Your task to perform on an android device: all mails in gmail Image 0: 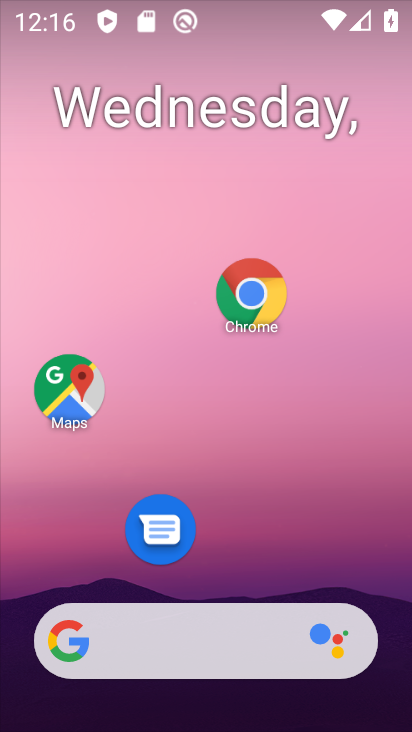
Step 0: drag from (310, 666) to (306, 252)
Your task to perform on an android device: all mails in gmail Image 1: 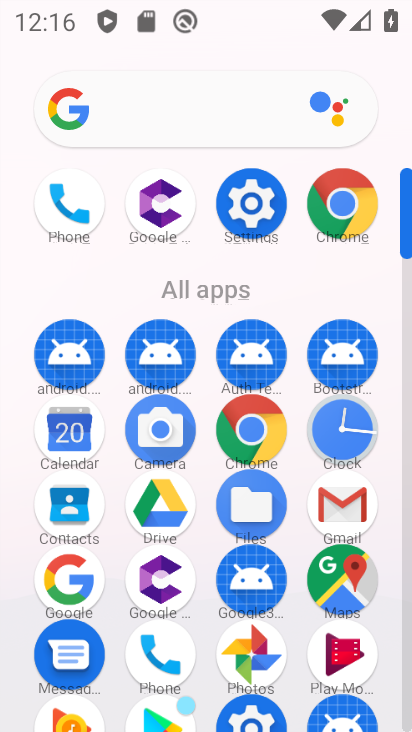
Step 1: click (353, 503)
Your task to perform on an android device: all mails in gmail Image 2: 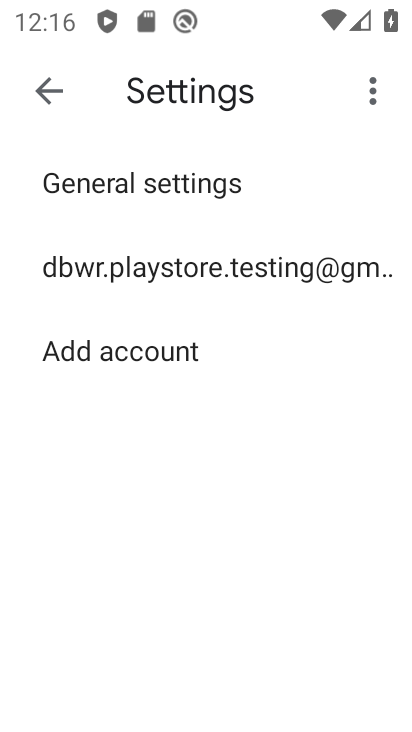
Step 2: click (47, 97)
Your task to perform on an android device: all mails in gmail Image 3: 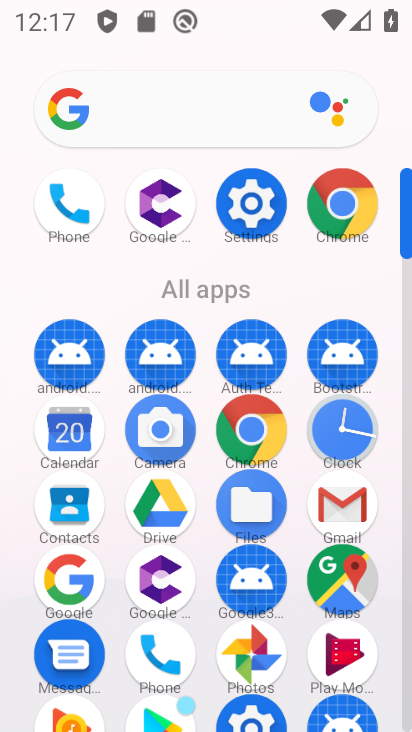
Step 3: click (347, 507)
Your task to perform on an android device: all mails in gmail Image 4: 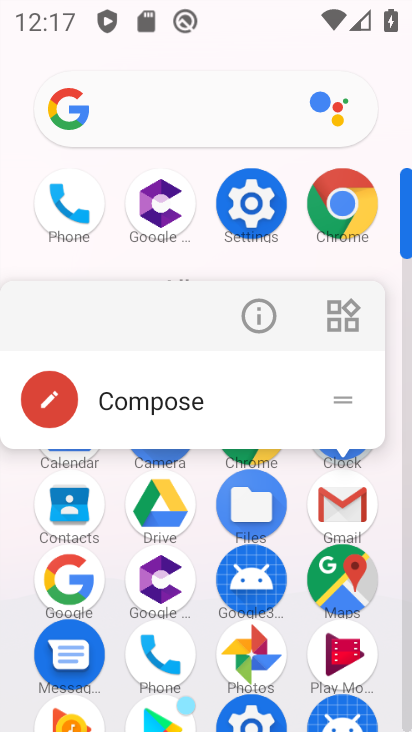
Step 4: click (335, 517)
Your task to perform on an android device: all mails in gmail Image 5: 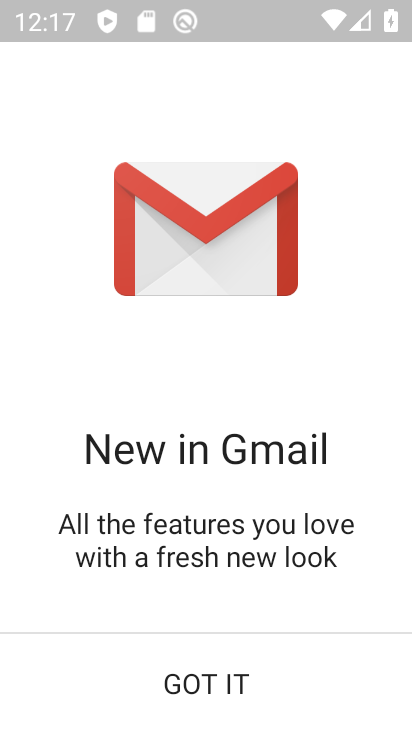
Step 5: click (273, 679)
Your task to perform on an android device: all mails in gmail Image 6: 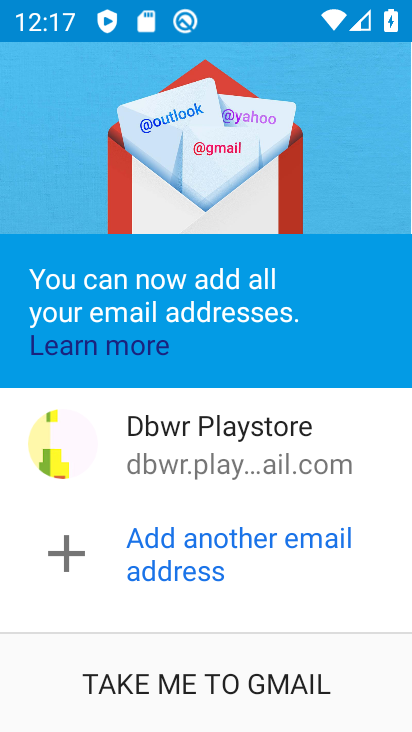
Step 6: click (293, 689)
Your task to perform on an android device: all mails in gmail Image 7: 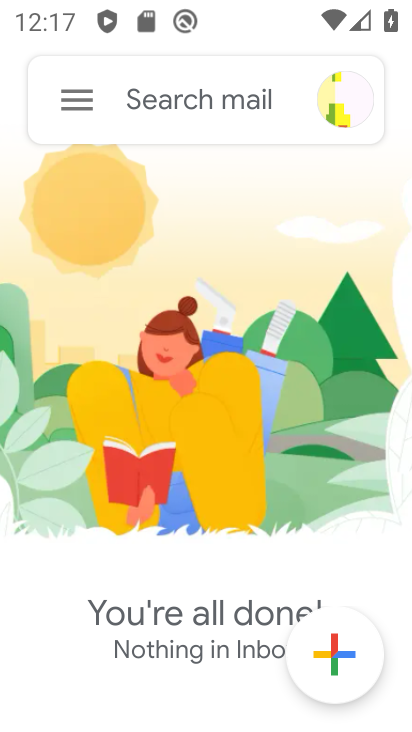
Step 7: click (85, 107)
Your task to perform on an android device: all mails in gmail Image 8: 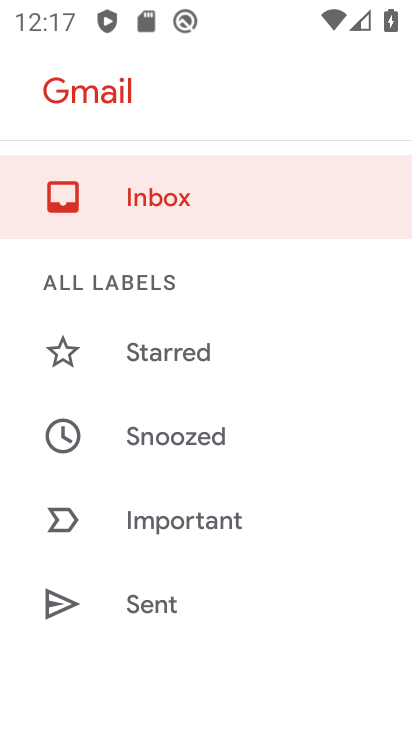
Step 8: drag from (219, 528) to (266, 149)
Your task to perform on an android device: all mails in gmail Image 9: 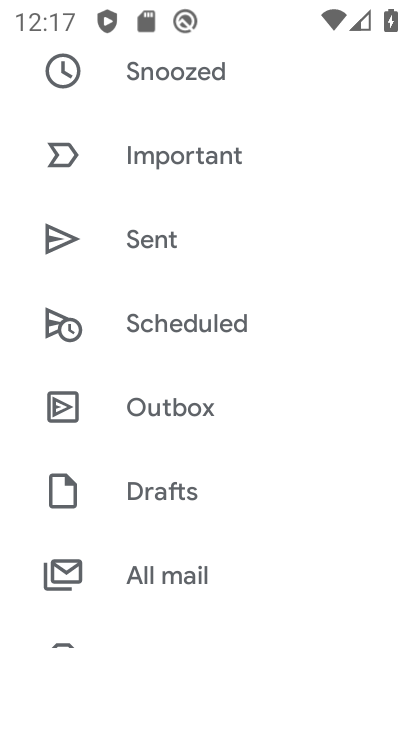
Step 9: click (193, 568)
Your task to perform on an android device: all mails in gmail Image 10: 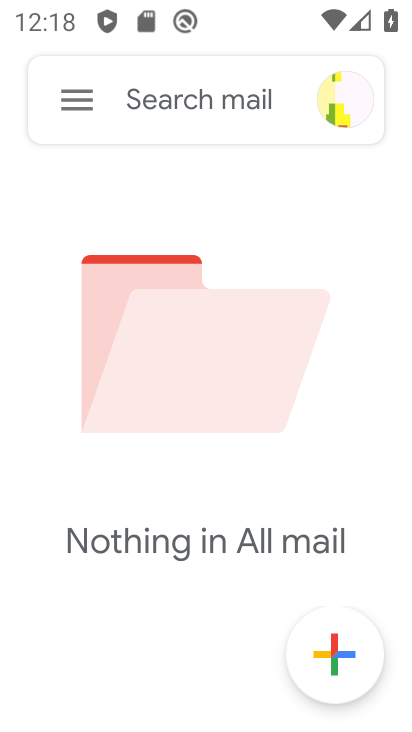
Step 10: task complete